Your task to perform on an android device: stop showing notifications on the lock screen Image 0: 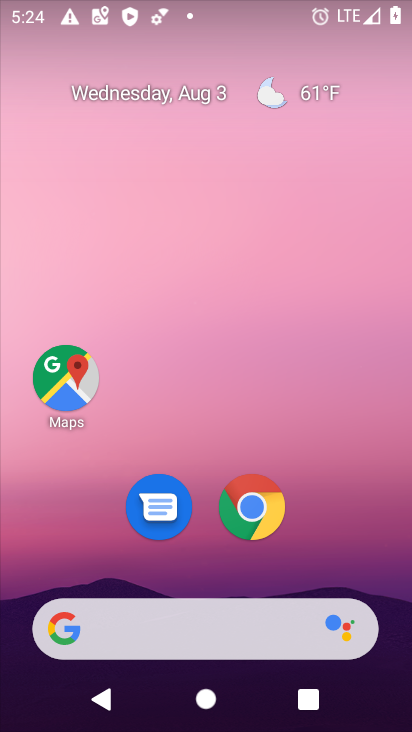
Step 0: drag from (351, 535) to (295, 161)
Your task to perform on an android device: stop showing notifications on the lock screen Image 1: 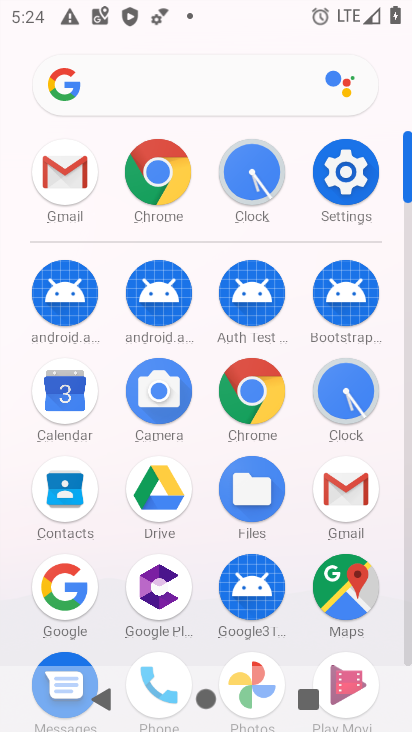
Step 1: click (347, 178)
Your task to perform on an android device: stop showing notifications on the lock screen Image 2: 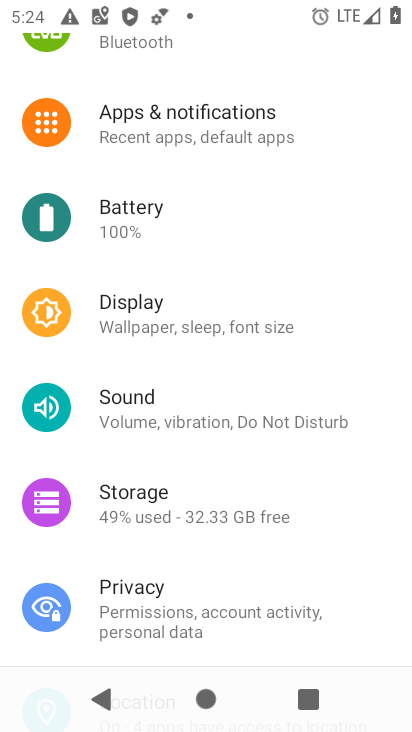
Step 2: click (218, 126)
Your task to perform on an android device: stop showing notifications on the lock screen Image 3: 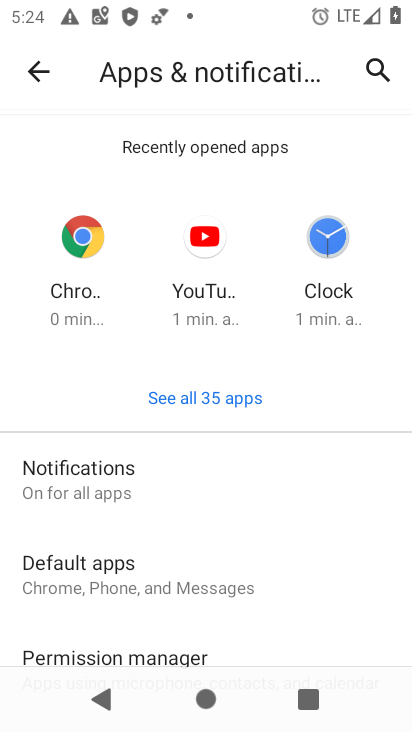
Step 3: click (94, 459)
Your task to perform on an android device: stop showing notifications on the lock screen Image 4: 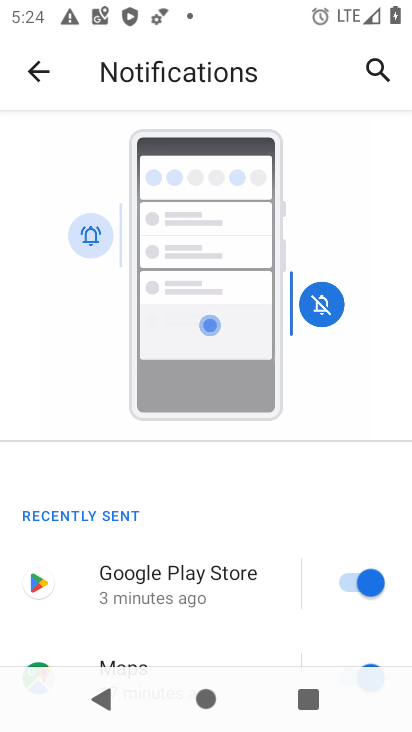
Step 4: drag from (264, 518) to (314, 94)
Your task to perform on an android device: stop showing notifications on the lock screen Image 5: 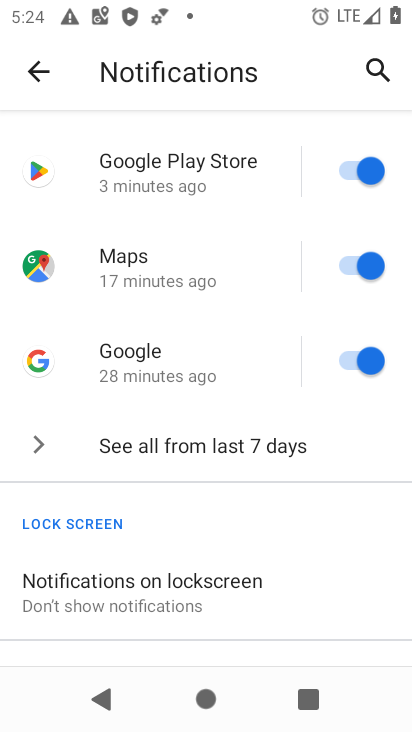
Step 5: click (204, 601)
Your task to perform on an android device: stop showing notifications on the lock screen Image 6: 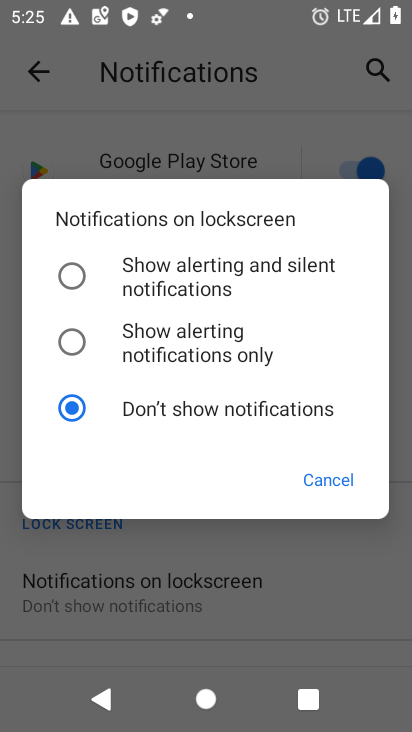
Step 6: task complete